Your task to perform on an android device: turn notification dots on Image 0: 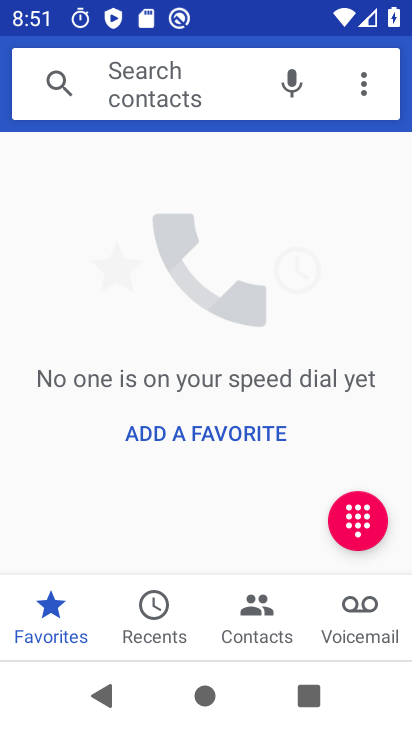
Step 0: press home button
Your task to perform on an android device: turn notification dots on Image 1: 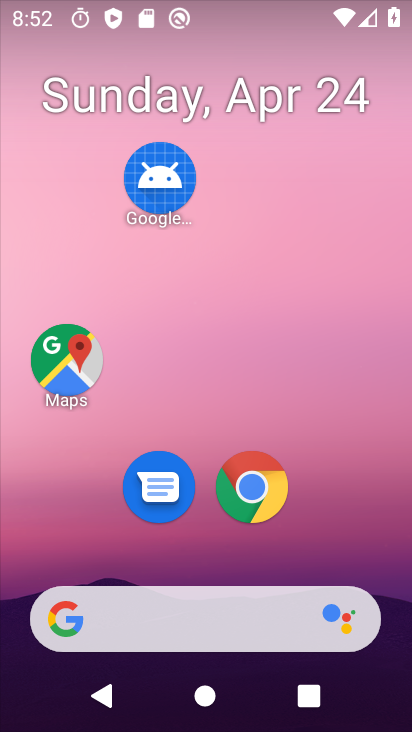
Step 1: drag from (325, 478) to (282, 80)
Your task to perform on an android device: turn notification dots on Image 2: 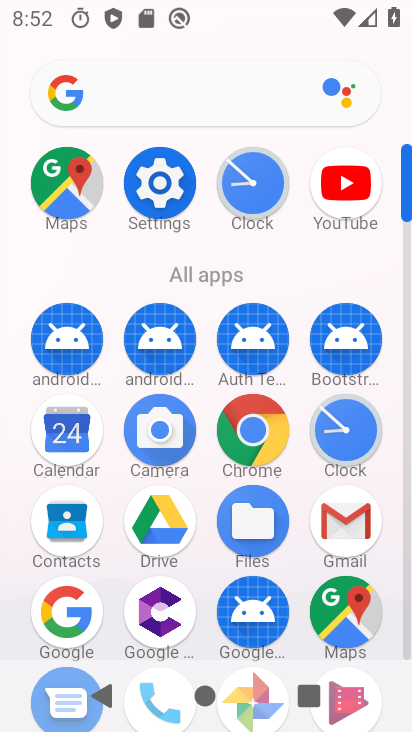
Step 2: click (152, 188)
Your task to perform on an android device: turn notification dots on Image 3: 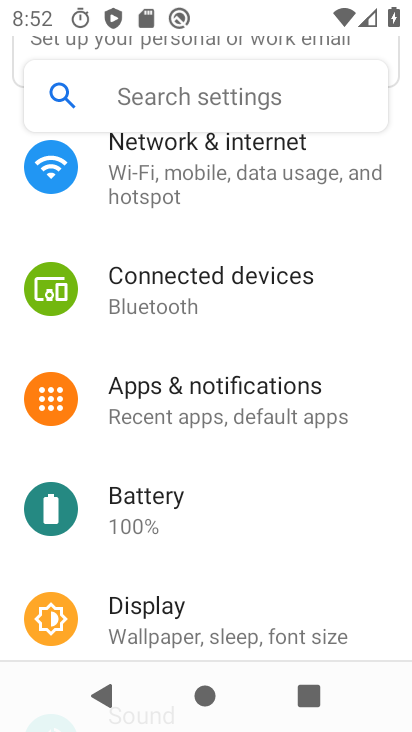
Step 3: click (203, 400)
Your task to perform on an android device: turn notification dots on Image 4: 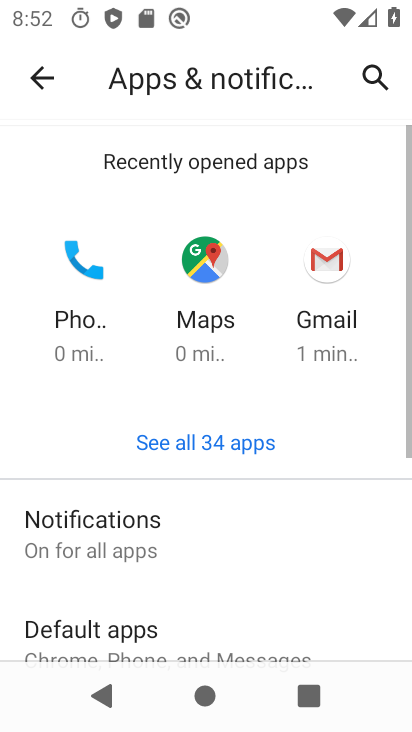
Step 4: click (116, 537)
Your task to perform on an android device: turn notification dots on Image 5: 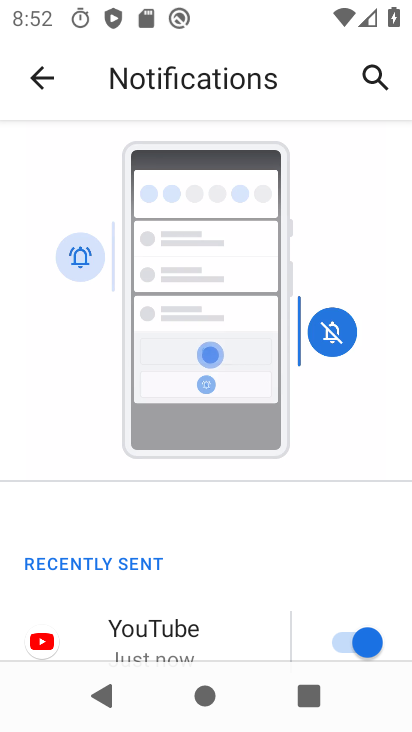
Step 5: drag from (186, 577) to (182, 217)
Your task to perform on an android device: turn notification dots on Image 6: 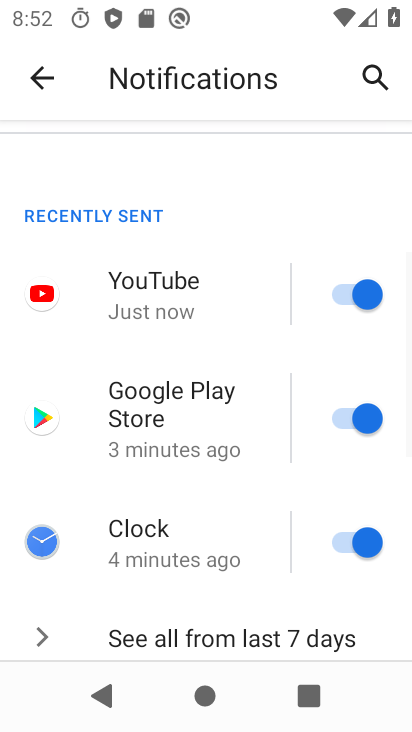
Step 6: drag from (169, 583) to (162, 245)
Your task to perform on an android device: turn notification dots on Image 7: 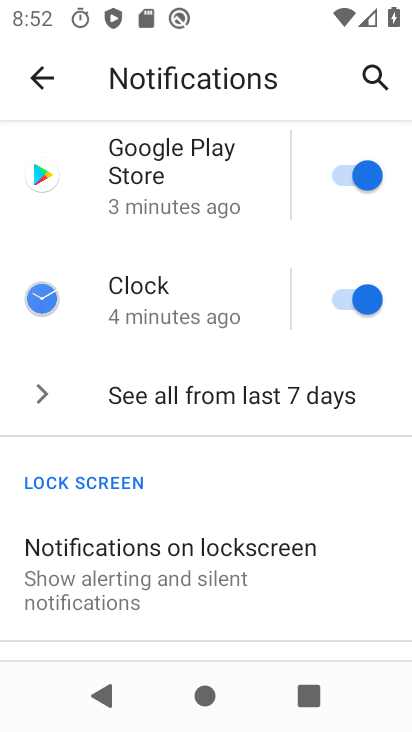
Step 7: drag from (181, 566) to (174, 209)
Your task to perform on an android device: turn notification dots on Image 8: 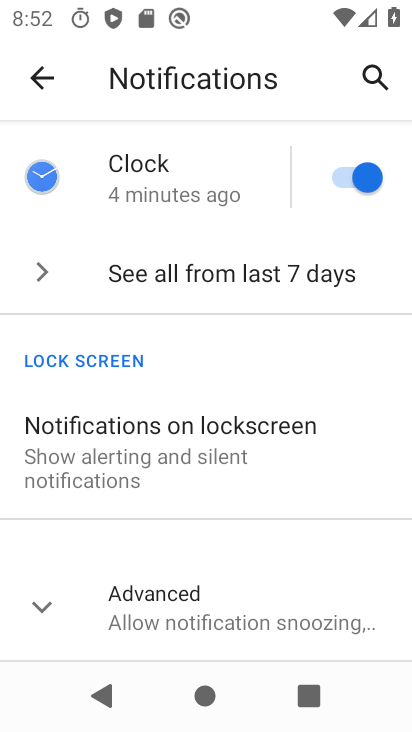
Step 8: click (187, 612)
Your task to perform on an android device: turn notification dots on Image 9: 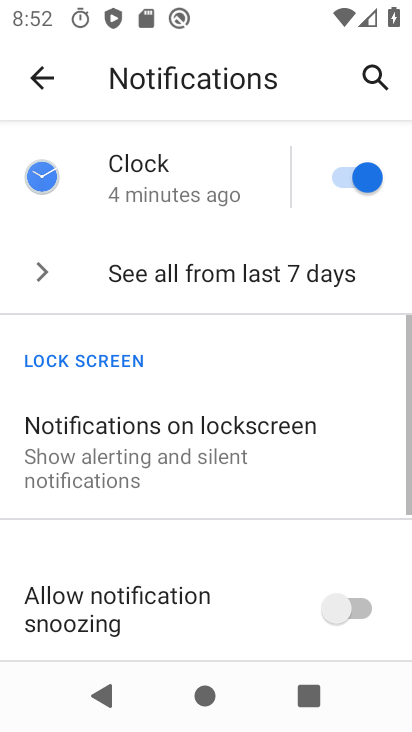
Step 9: task complete